Your task to perform on an android device: change the clock display to show seconds Image 0: 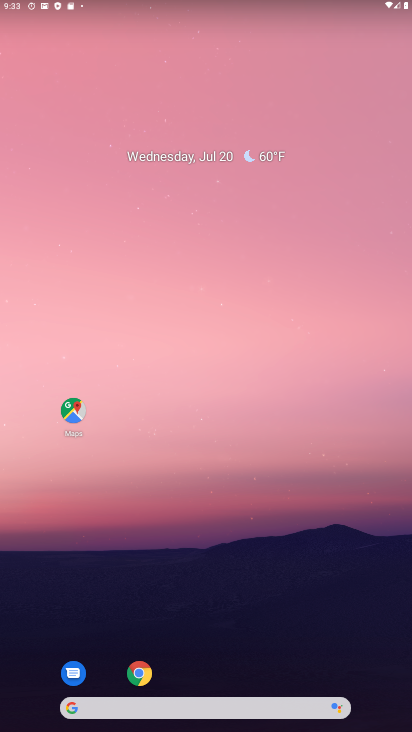
Step 0: drag from (253, 648) to (226, 154)
Your task to perform on an android device: change the clock display to show seconds Image 1: 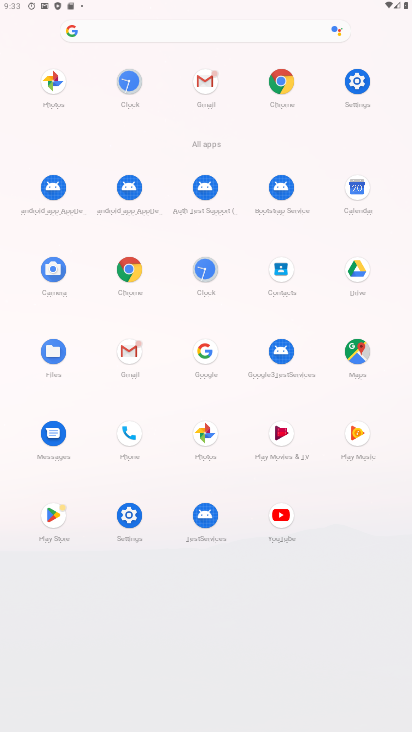
Step 1: click (214, 267)
Your task to perform on an android device: change the clock display to show seconds Image 2: 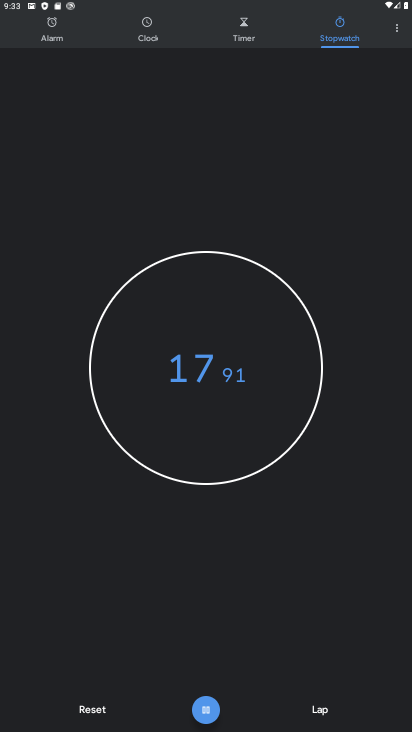
Step 2: click (401, 25)
Your task to perform on an android device: change the clock display to show seconds Image 3: 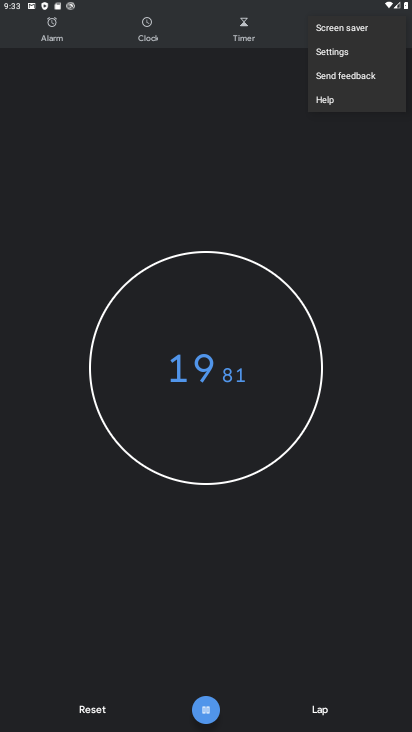
Step 3: click (335, 57)
Your task to perform on an android device: change the clock display to show seconds Image 4: 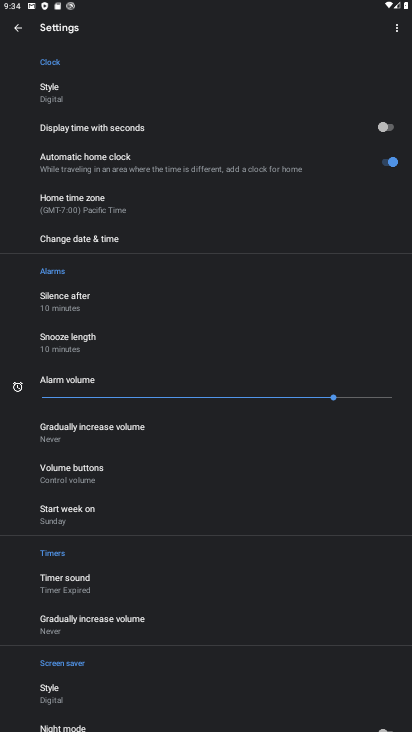
Step 4: click (72, 95)
Your task to perform on an android device: change the clock display to show seconds Image 5: 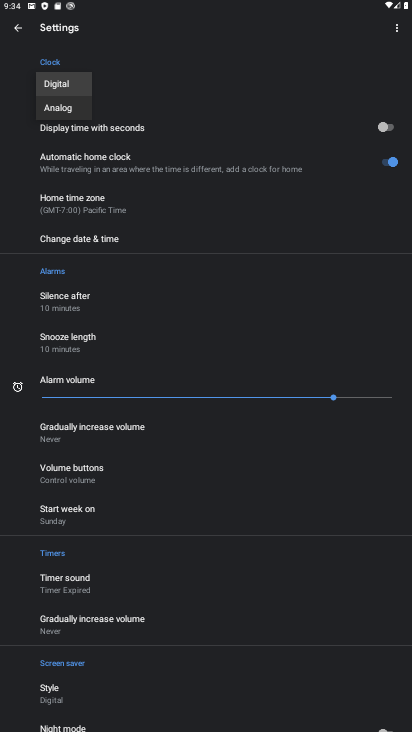
Step 5: click (403, 127)
Your task to perform on an android device: change the clock display to show seconds Image 6: 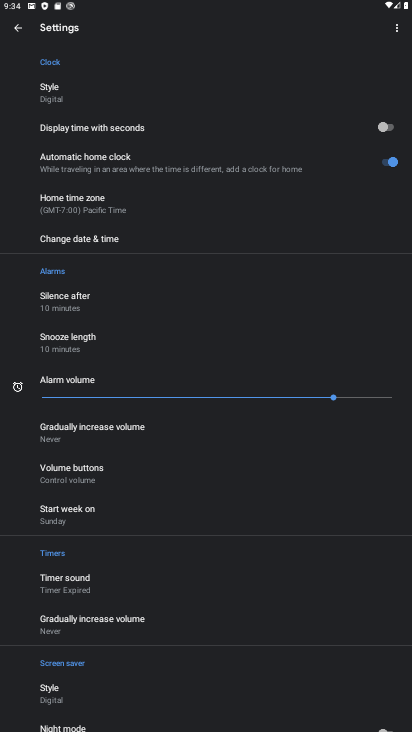
Step 6: click (394, 124)
Your task to perform on an android device: change the clock display to show seconds Image 7: 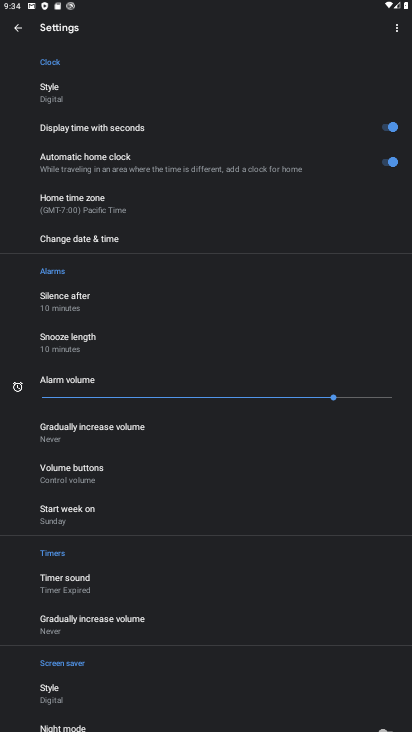
Step 7: task complete